Your task to perform on an android device: open app "Expedia: Hotels, Flights & Car" (install if not already installed) Image 0: 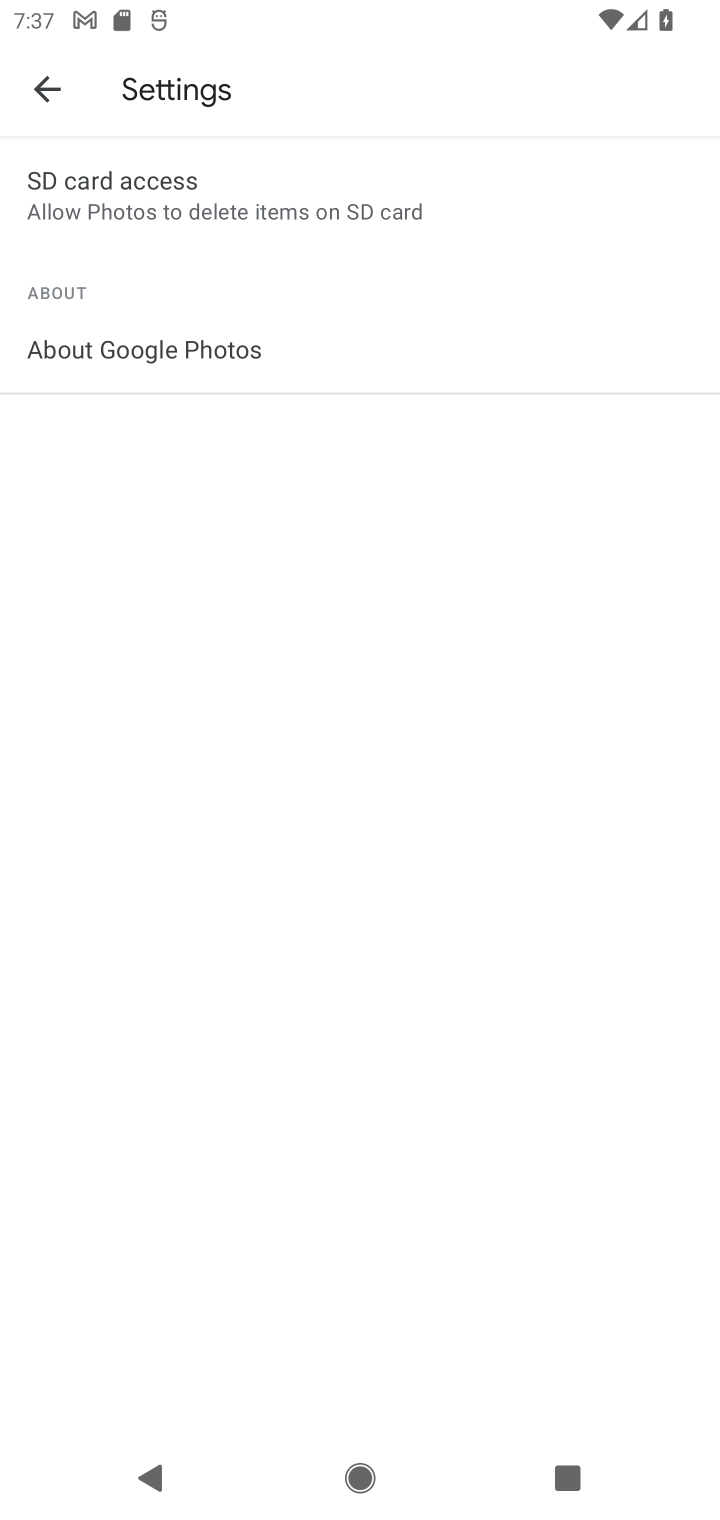
Step 0: press home button
Your task to perform on an android device: open app "Expedia: Hotels, Flights & Car" (install if not already installed) Image 1: 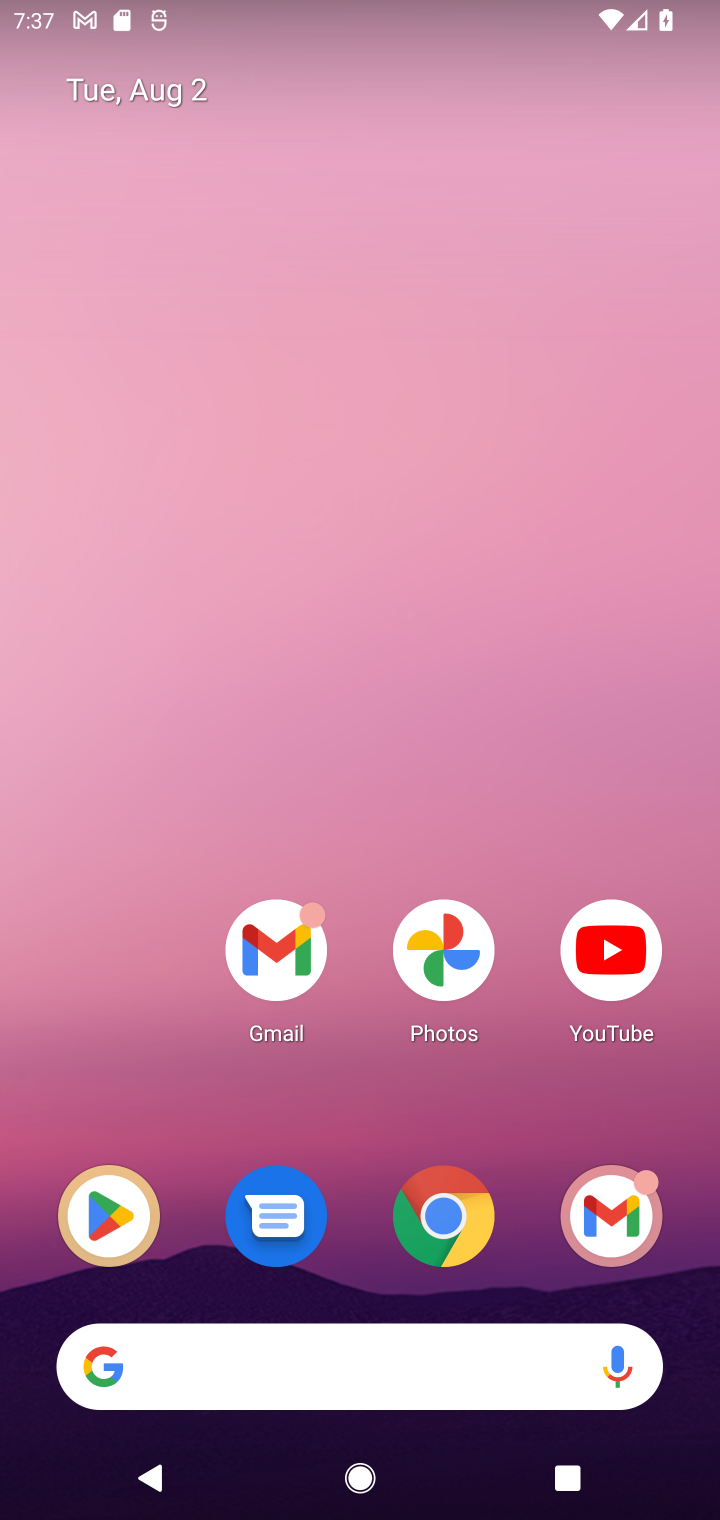
Step 1: click (109, 1226)
Your task to perform on an android device: open app "Expedia: Hotels, Flights & Car" (install if not already installed) Image 2: 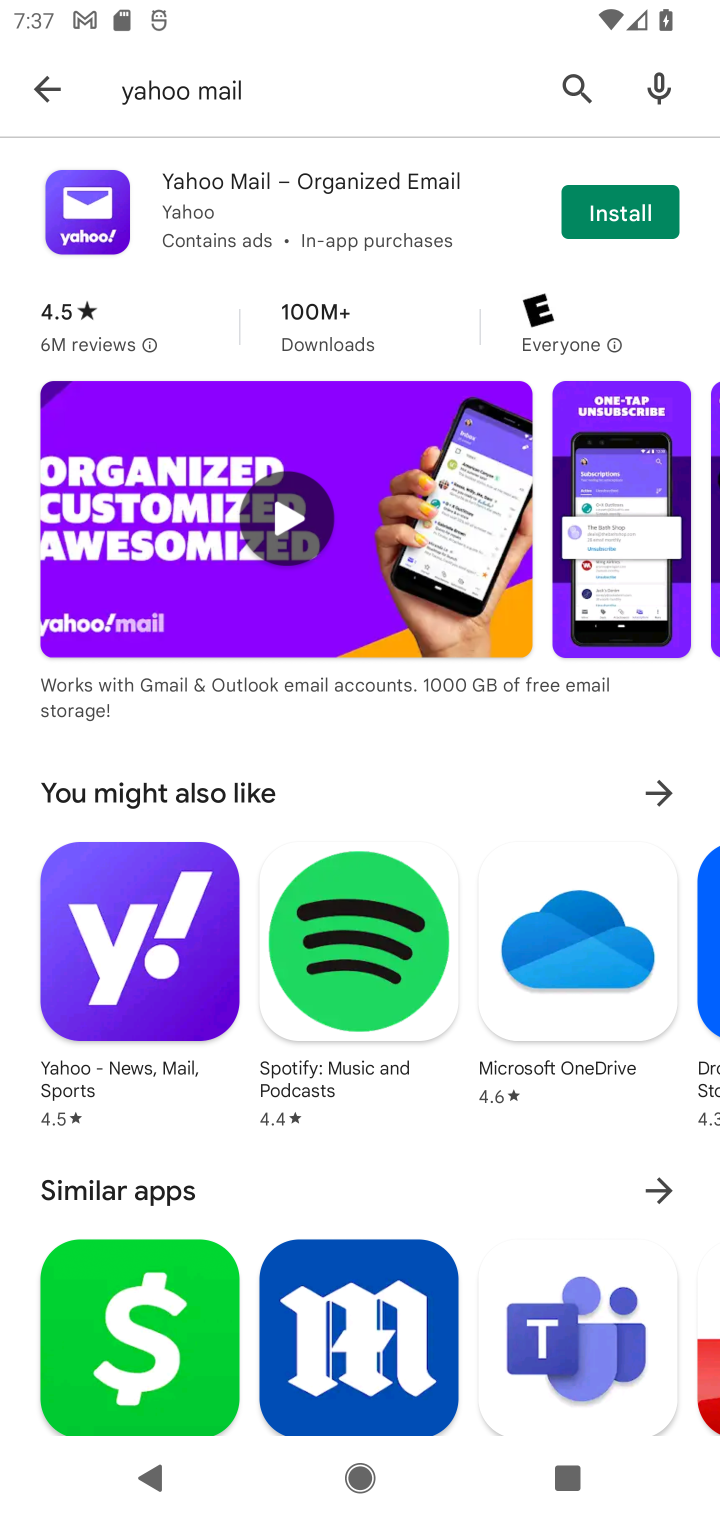
Step 2: click (579, 78)
Your task to perform on an android device: open app "Expedia: Hotels, Flights & Car" (install if not already installed) Image 3: 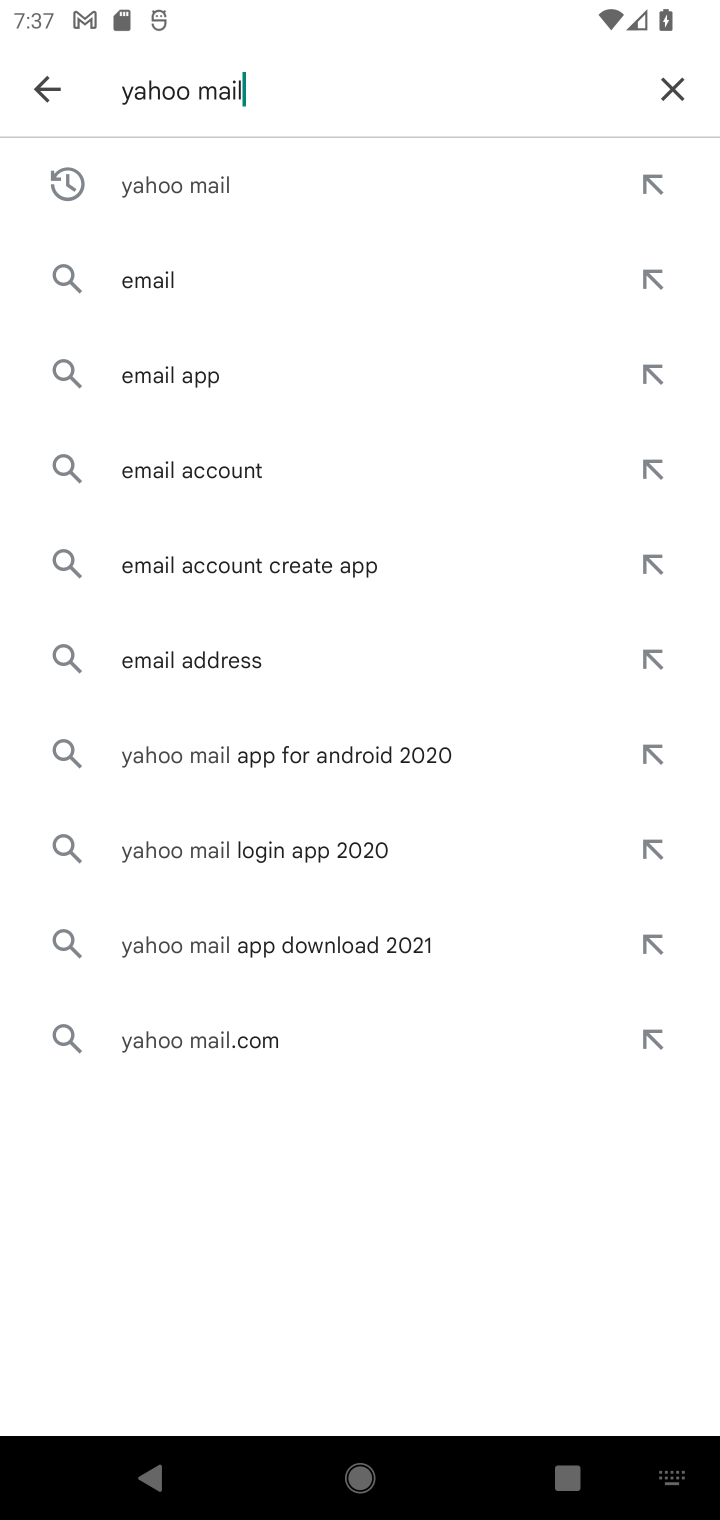
Step 3: click (671, 75)
Your task to perform on an android device: open app "Expedia: Hotels, Flights & Car" (install if not already installed) Image 4: 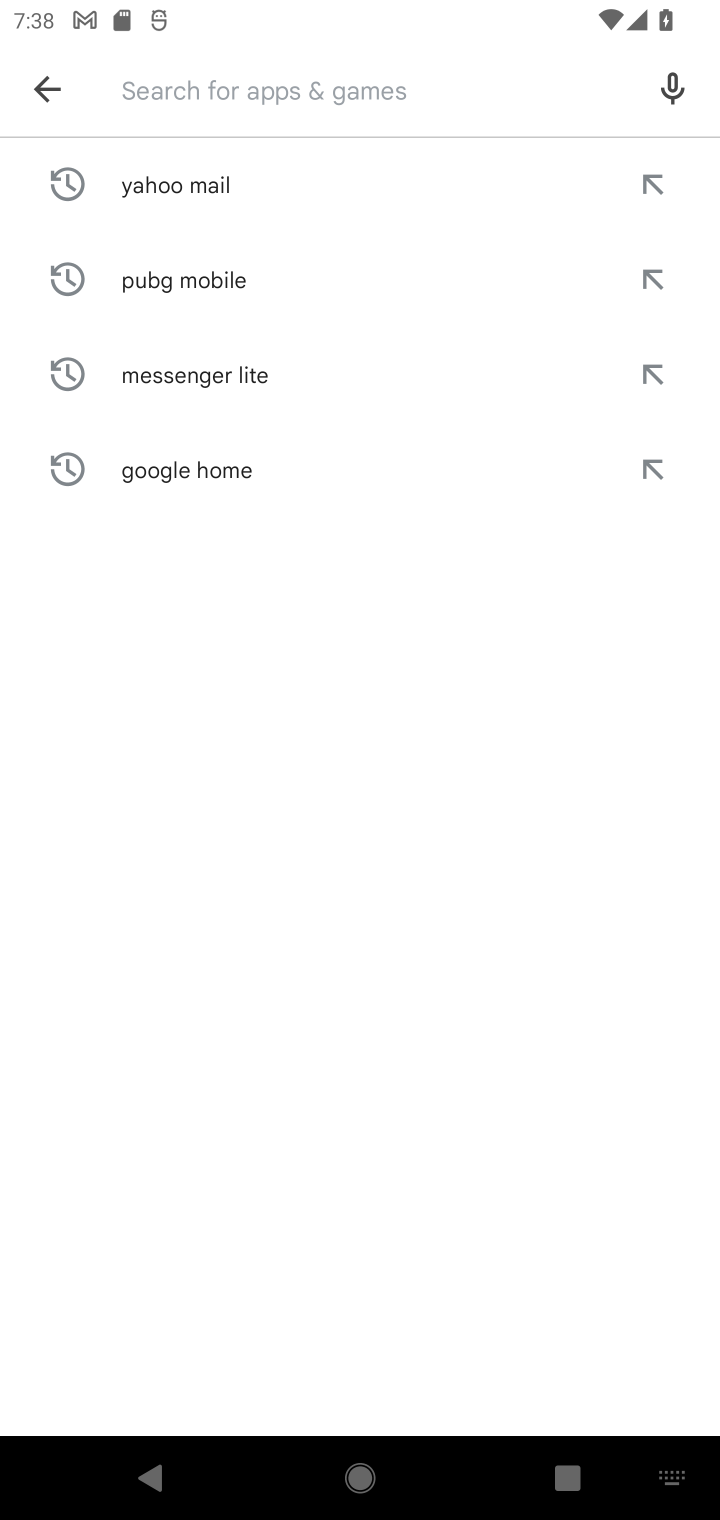
Step 4: type "Expedia: Hotels, Flights & Car"
Your task to perform on an android device: open app "Expedia: Hotels, Flights & Car" (install if not already installed) Image 5: 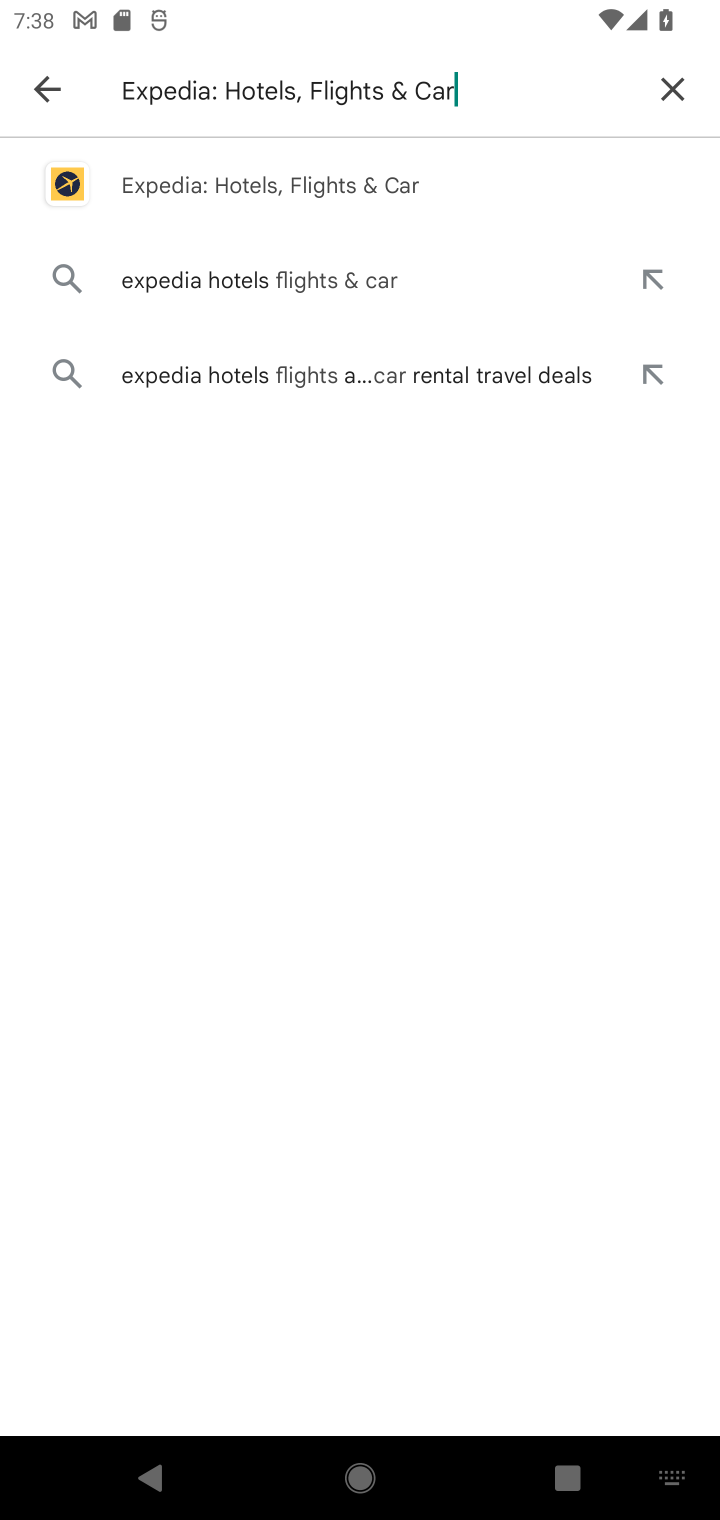
Step 5: click (302, 188)
Your task to perform on an android device: open app "Expedia: Hotels, Flights & Car" (install if not already installed) Image 6: 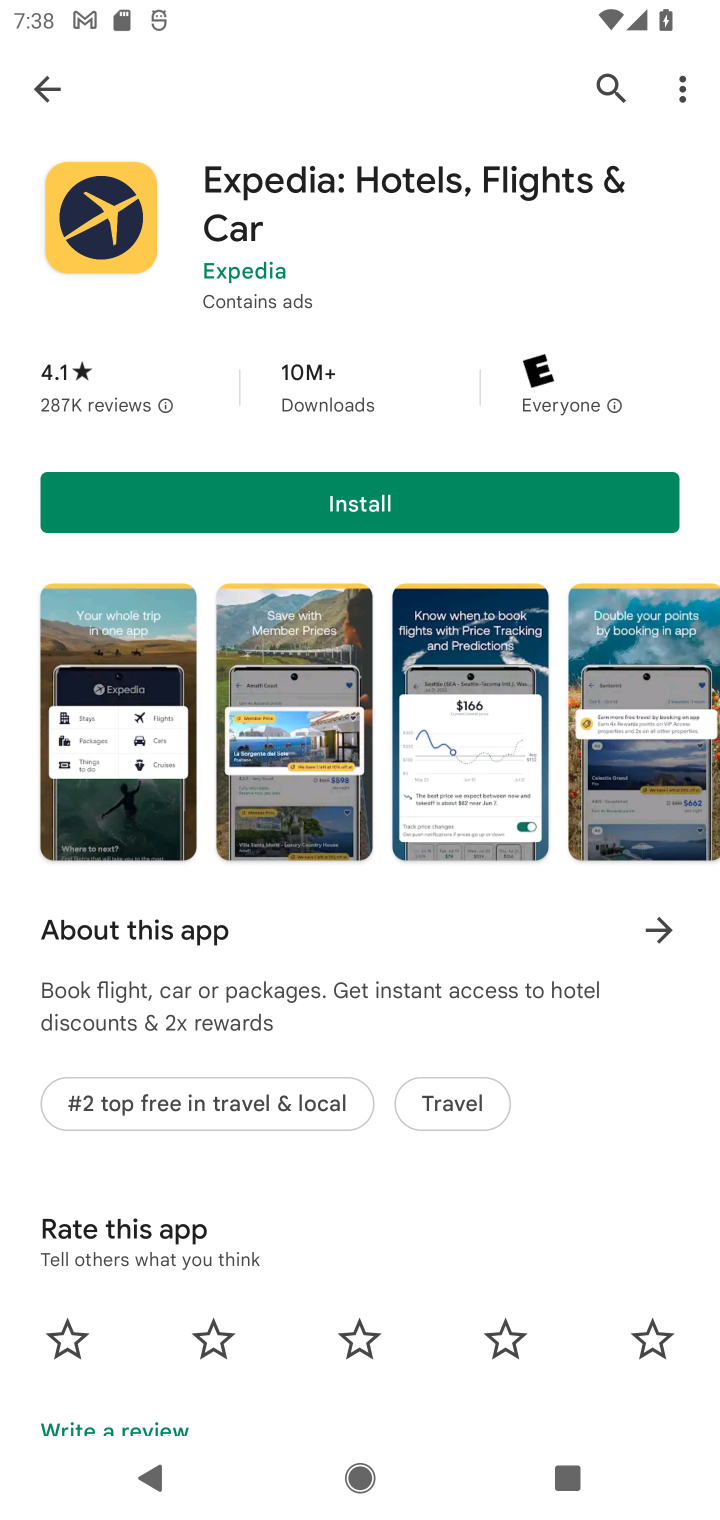
Step 6: click (396, 504)
Your task to perform on an android device: open app "Expedia: Hotels, Flights & Car" (install if not already installed) Image 7: 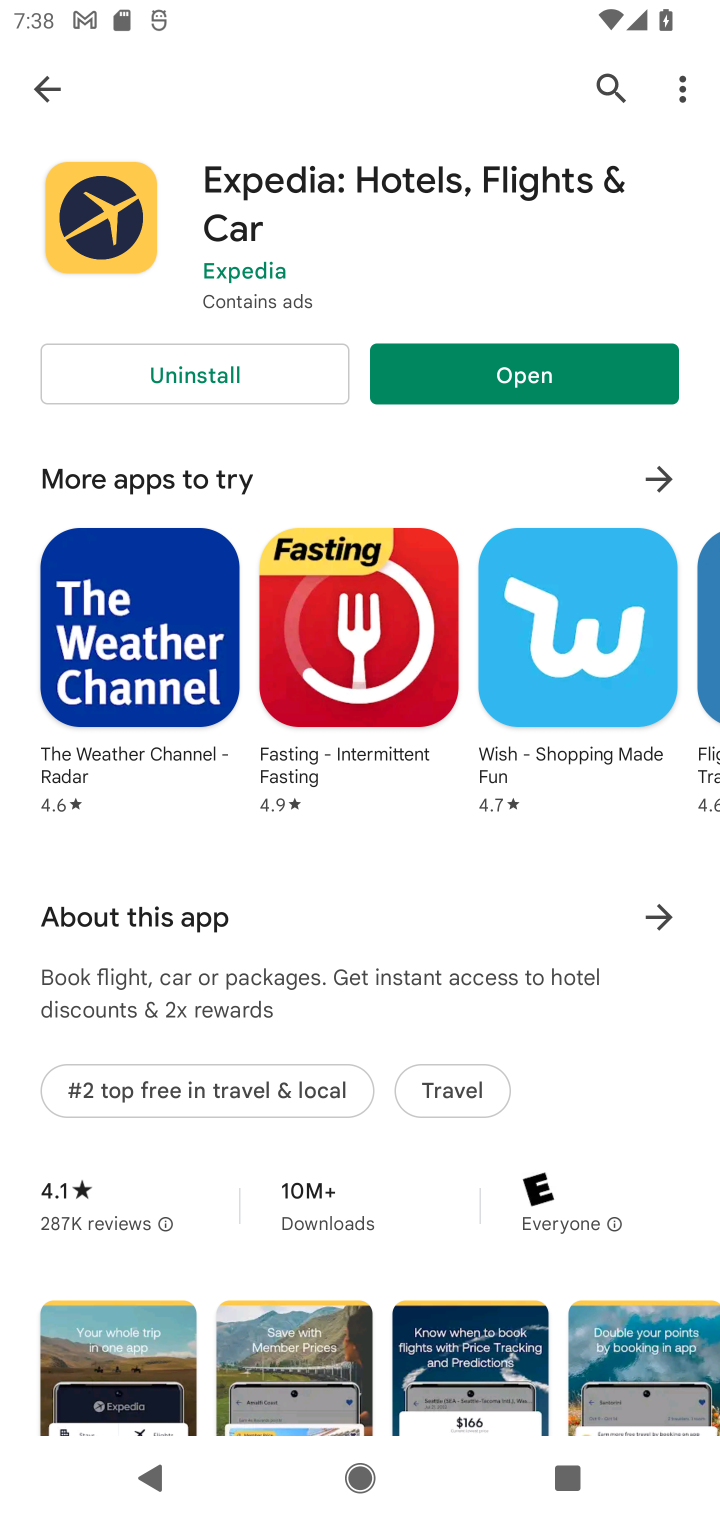
Step 7: click (545, 377)
Your task to perform on an android device: open app "Expedia: Hotels, Flights & Car" (install if not already installed) Image 8: 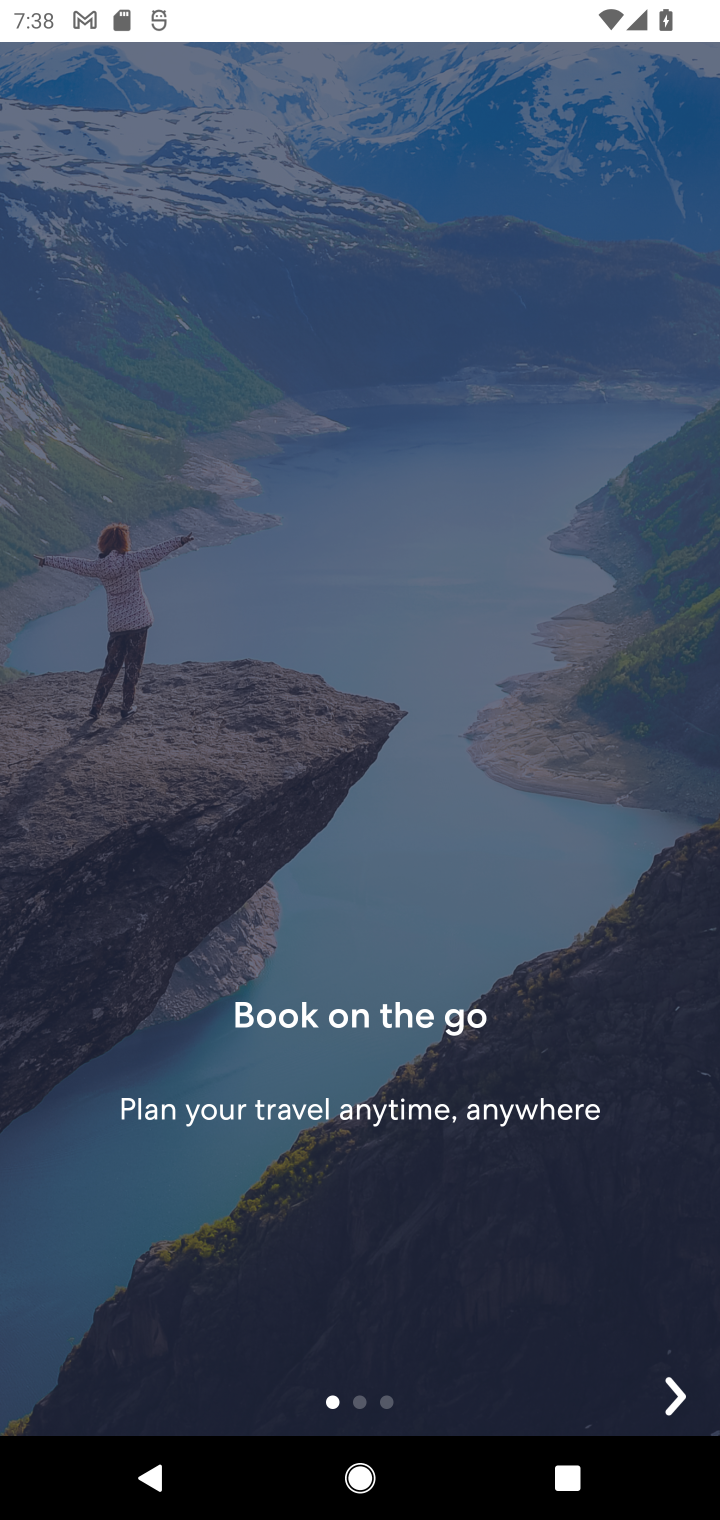
Step 8: task complete